Your task to perform on an android device: snooze an email in the gmail app Image 0: 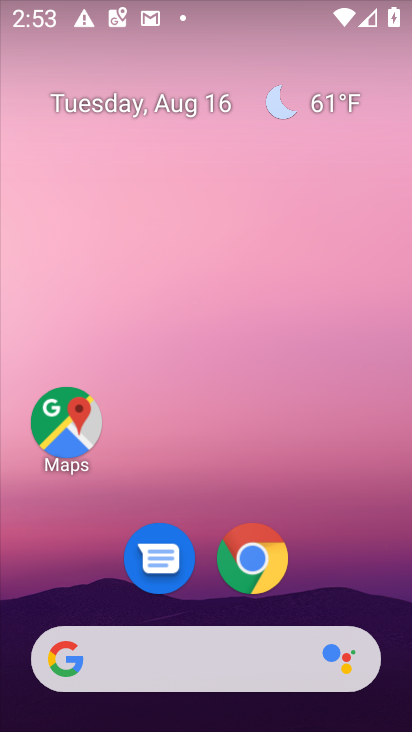
Step 0: drag from (392, 623) to (366, 138)
Your task to perform on an android device: snooze an email in the gmail app Image 1: 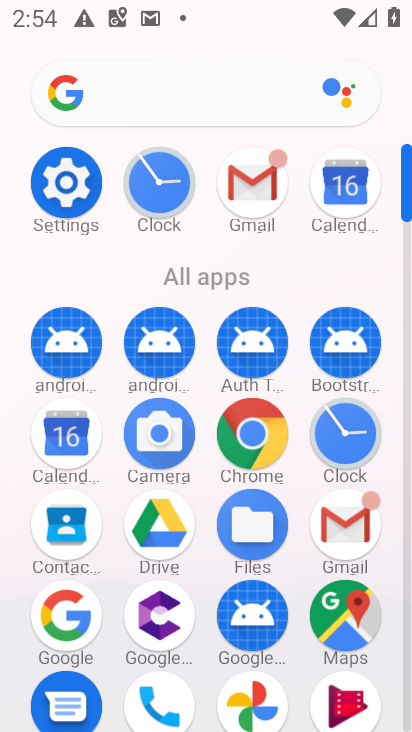
Step 1: click (408, 681)
Your task to perform on an android device: snooze an email in the gmail app Image 2: 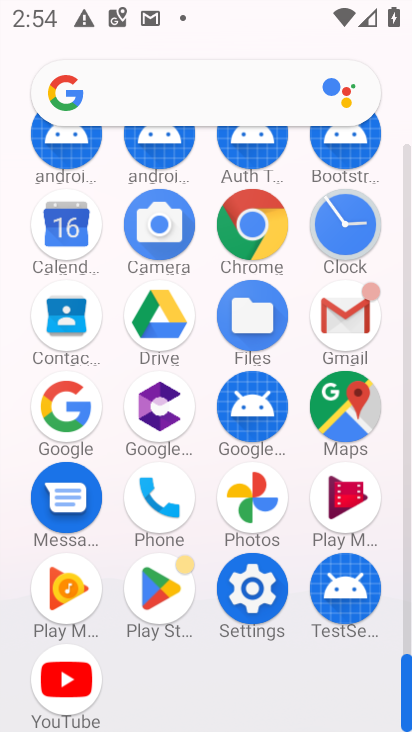
Step 2: click (344, 316)
Your task to perform on an android device: snooze an email in the gmail app Image 3: 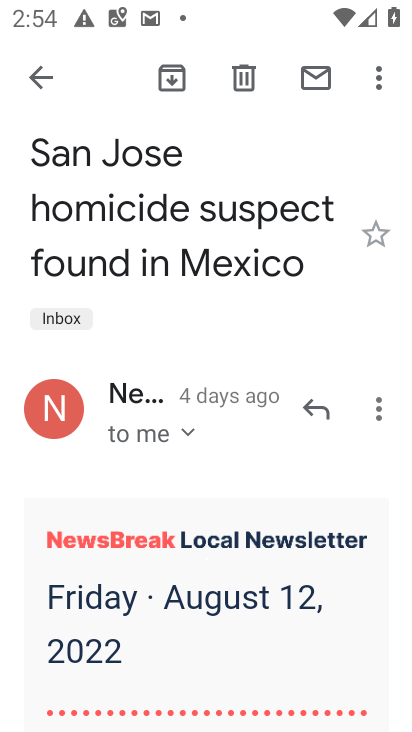
Step 3: click (373, 88)
Your task to perform on an android device: snooze an email in the gmail app Image 4: 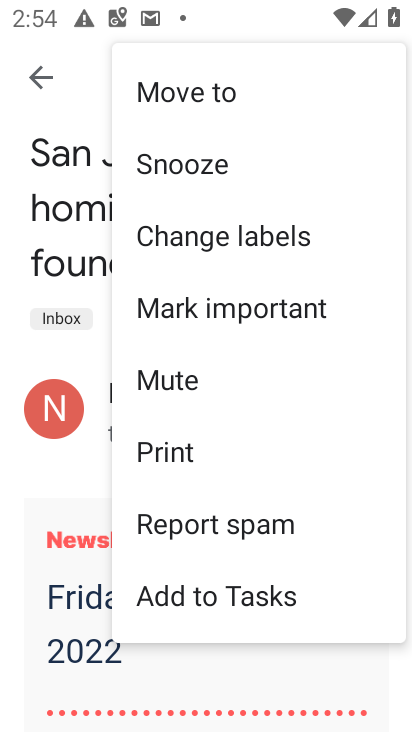
Step 4: click (170, 165)
Your task to perform on an android device: snooze an email in the gmail app Image 5: 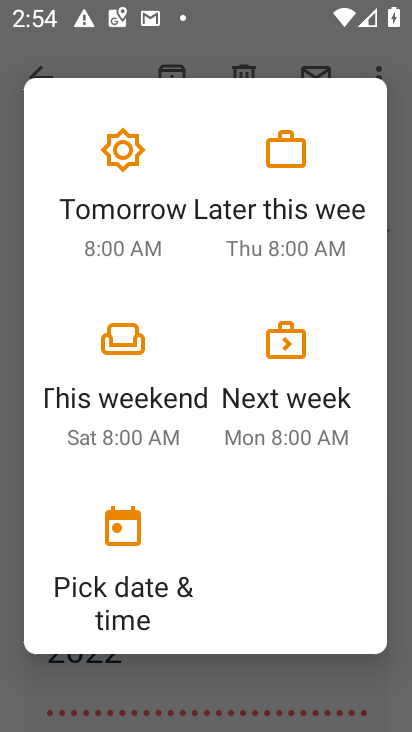
Step 5: click (102, 197)
Your task to perform on an android device: snooze an email in the gmail app Image 6: 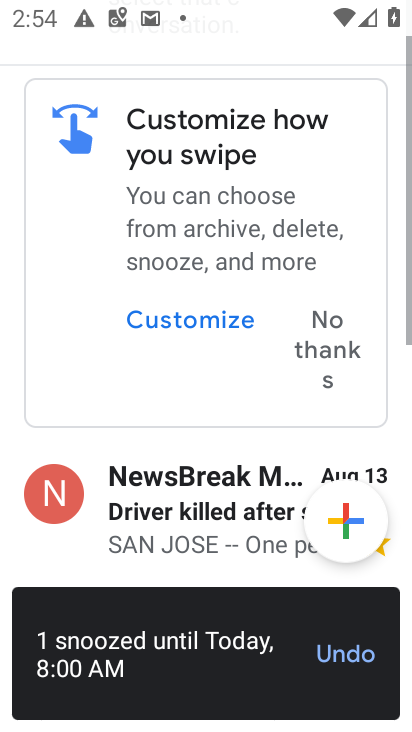
Step 6: click (328, 352)
Your task to perform on an android device: snooze an email in the gmail app Image 7: 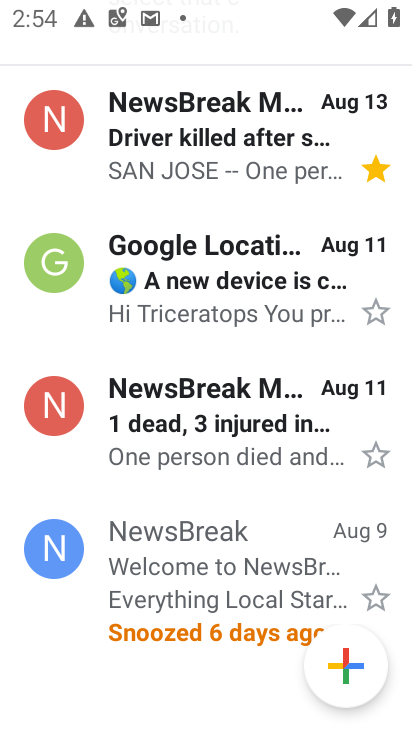
Step 7: task complete